Your task to perform on an android device: Find coffee shops on Maps Image 0: 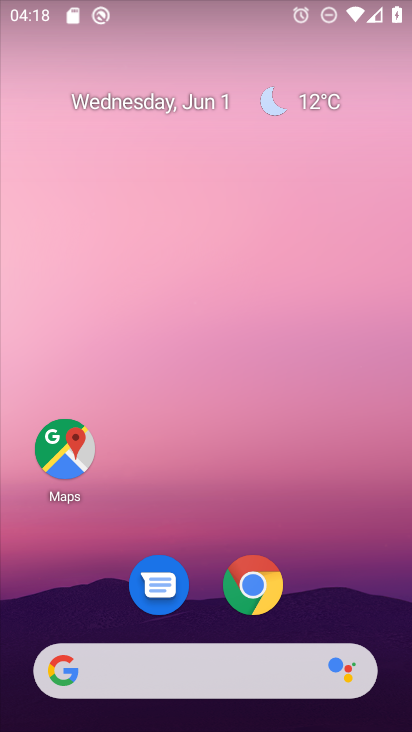
Step 0: click (65, 446)
Your task to perform on an android device: Find coffee shops on Maps Image 1: 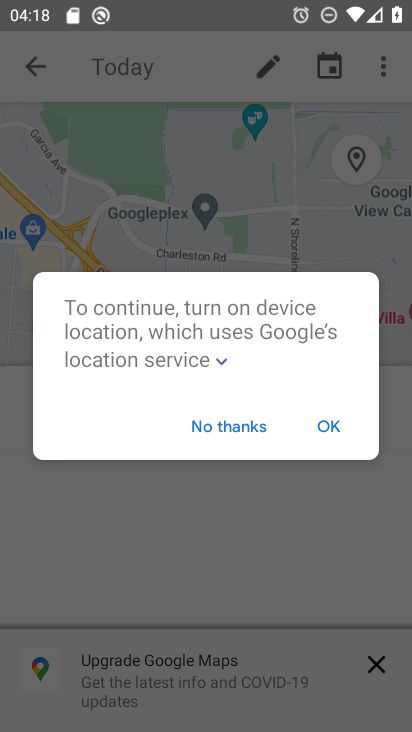
Step 1: click (34, 67)
Your task to perform on an android device: Find coffee shops on Maps Image 2: 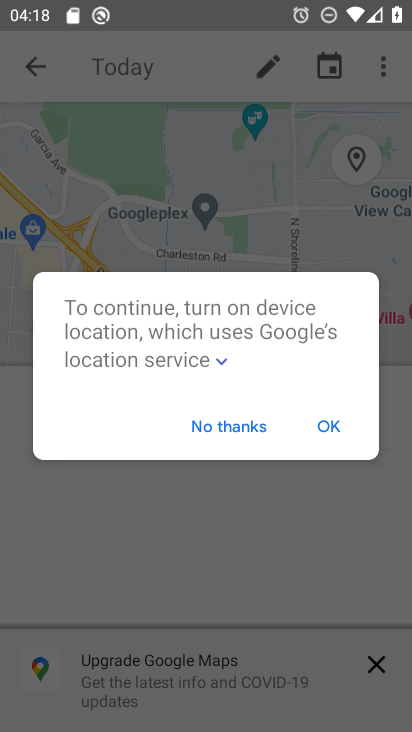
Step 2: click (324, 420)
Your task to perform on an android device: Find coffee shops on Maps Image 3: 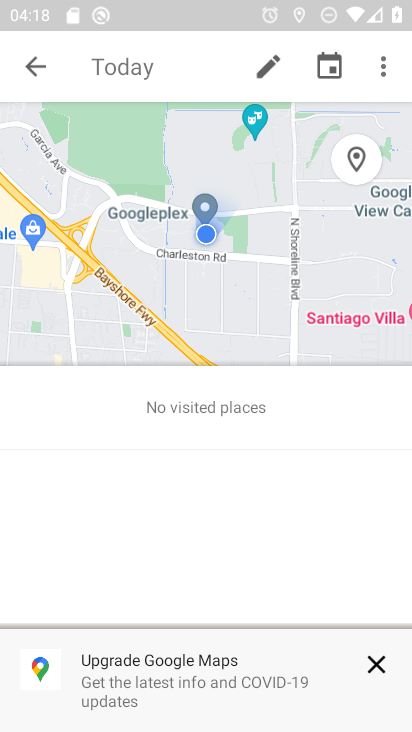
Step 3: click (35, 61)
Your task to perform on an android device: Find coffee shops on Maps Image 4: 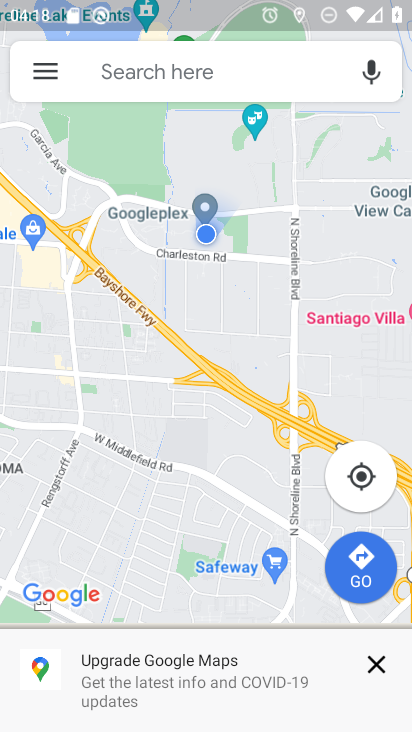
Step 4: click (120, 64)
Your task to perform on an android device: Find coffee shops on Maps Image 5: 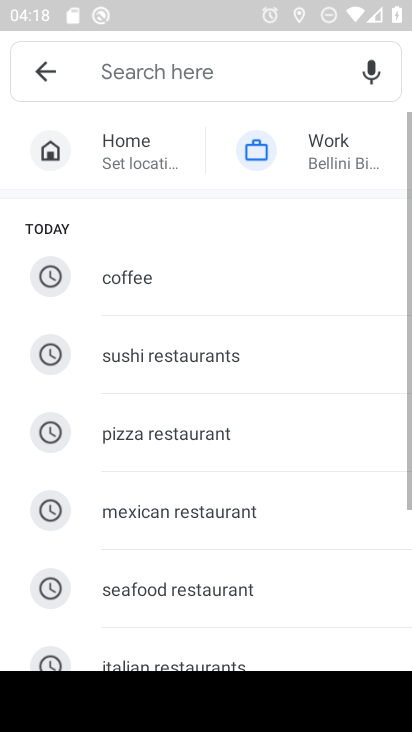
Step 5: click (150, 267)
Your task to perform on an android device: Find coffee shops on Maps Image 6: 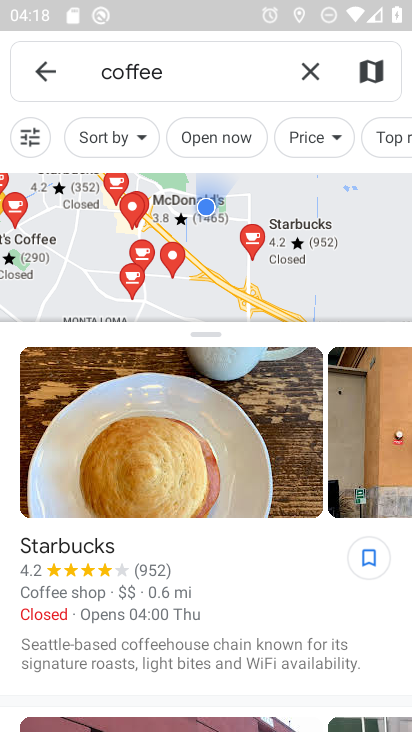
Step 6: task complete